Your task to perform on an android device: open device folders in google photos Image 0: 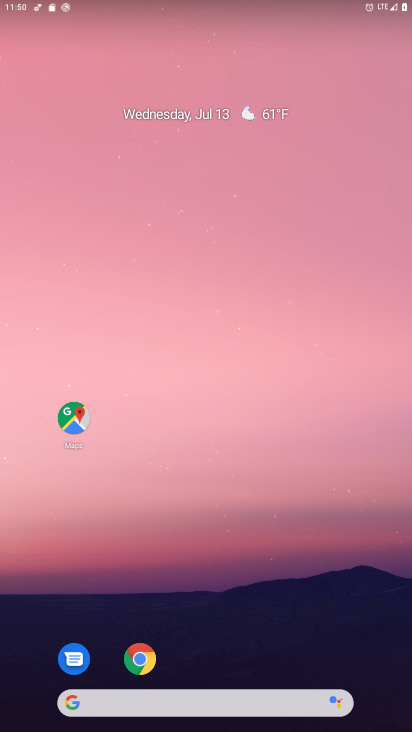
Step 0: press home button
Your task to perform on an android device: open device folders in google photos Image 1: 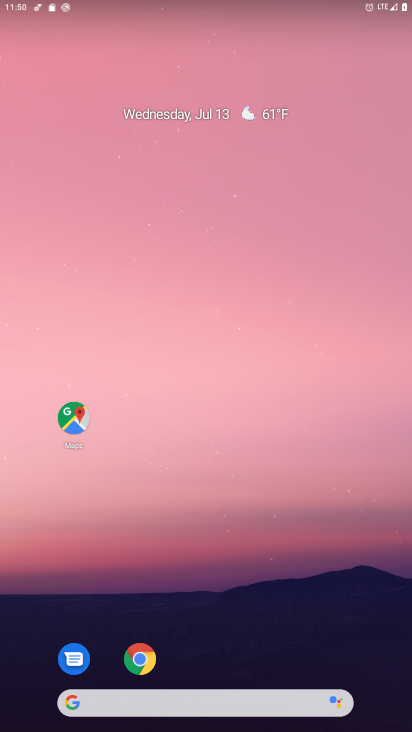
Step 1: drag from (211, 668) to (243, 4)
Your task to perform on an android device: open device folders in google photos Image 2: 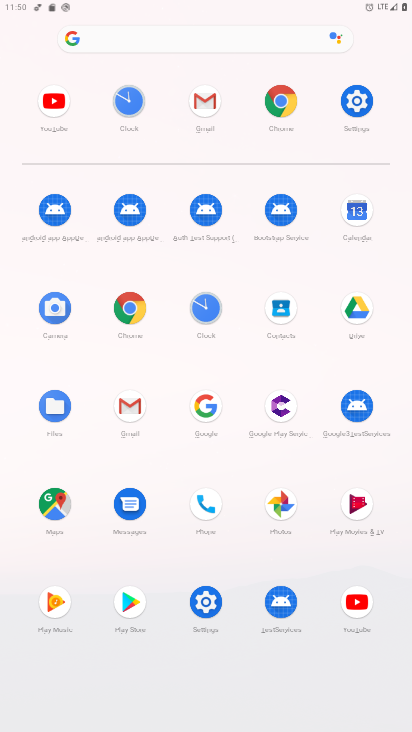
Step 2: click (278, 498)
Your task to perform on an android device: open device folders in google photos Image 3: 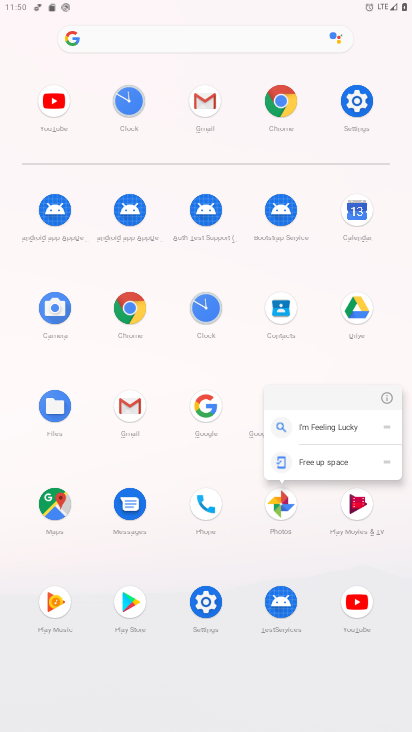
Step 3: click (283, 493)
Your task to perform on an android device: open device folders in google photos Image 4: 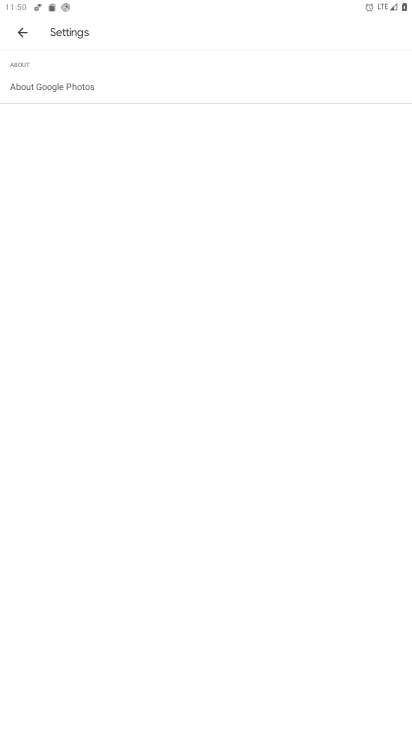
Step 4: click (19, 32)
Your task to perform on an android device: open device folders in google photos Image 5: 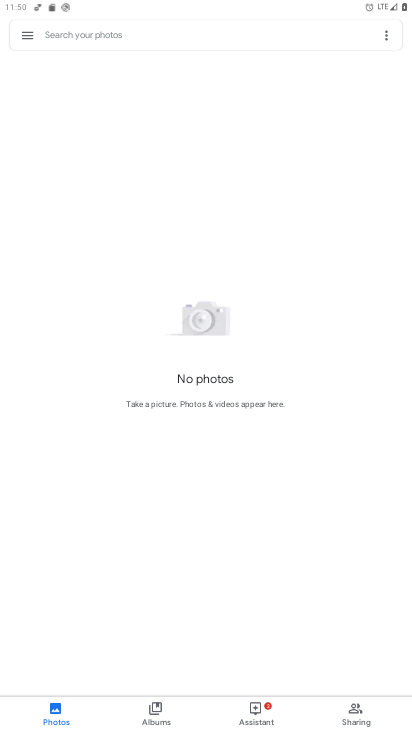
Step 5: click (108, 29)
Your task to perform on an android device: open device folders in google photos Image 6: 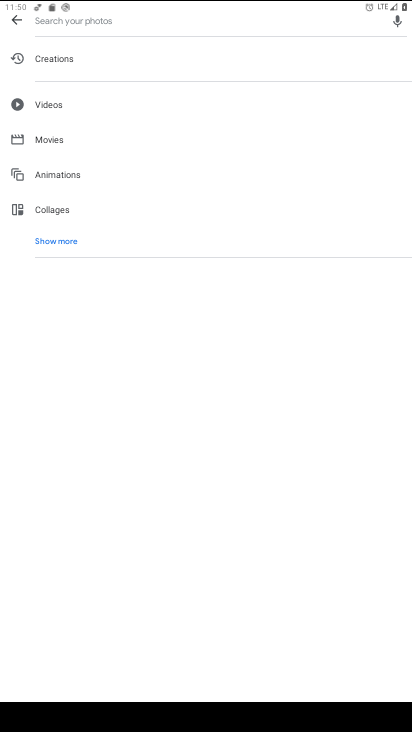
Step 6: type "device"
Your task to perform on an android device: open device folders in google photos Image 7: 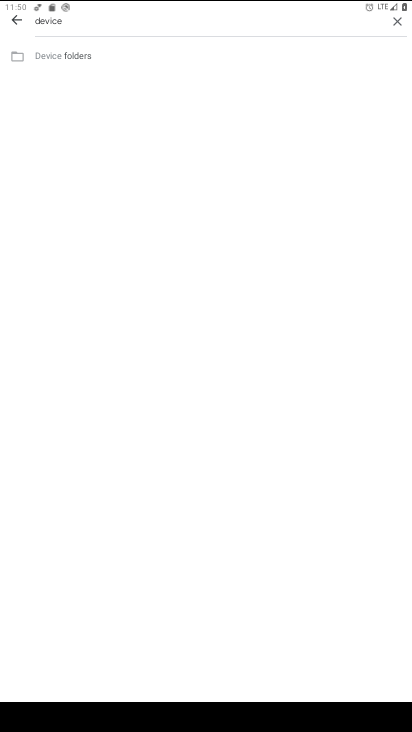
Step 7: click (72, 54)
Your task to perform on an android device: open device folders in google photos Image 8: 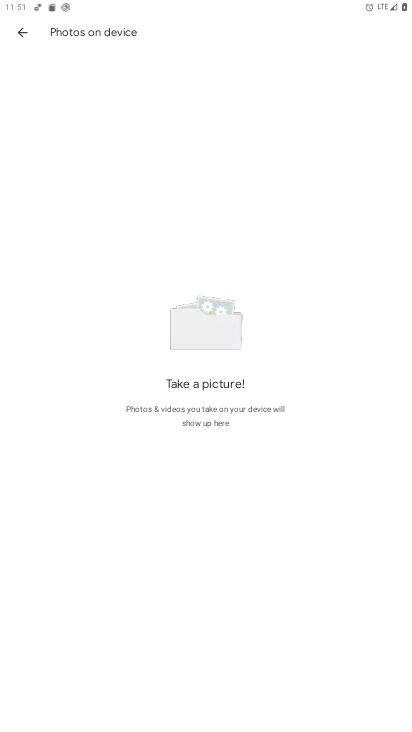
Step 8: task complete